Your task to perform on an android device: Open CNN.com Image 0: 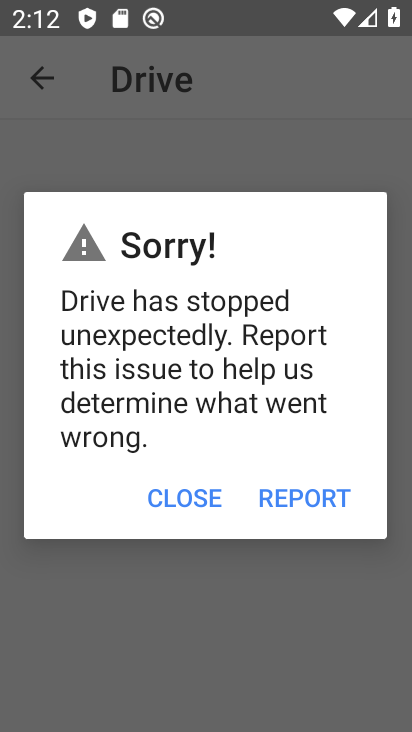
Step 0: press home button
Your task to perform on an android device: Open CNN.com Image 1: 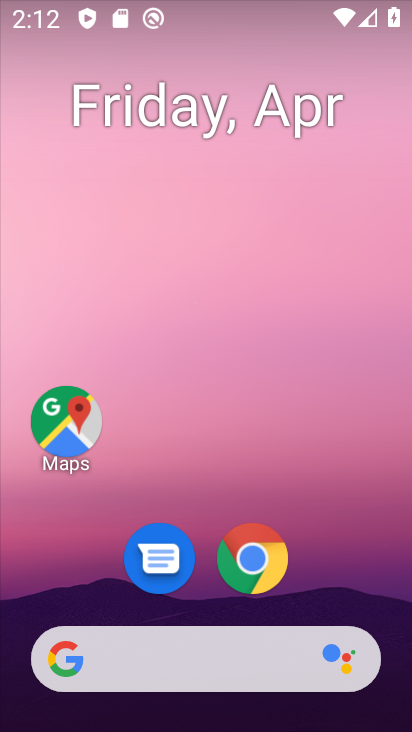
Step 1: click (238, 542)
Your task to perform on an android device: Open CNN.com Image 2: 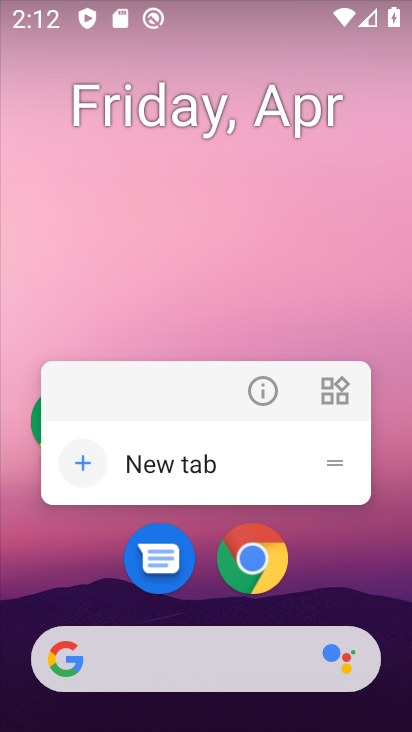
Step 2: click (238, 542)
Your task to perform on an android device: Open CNN.com Image 3: 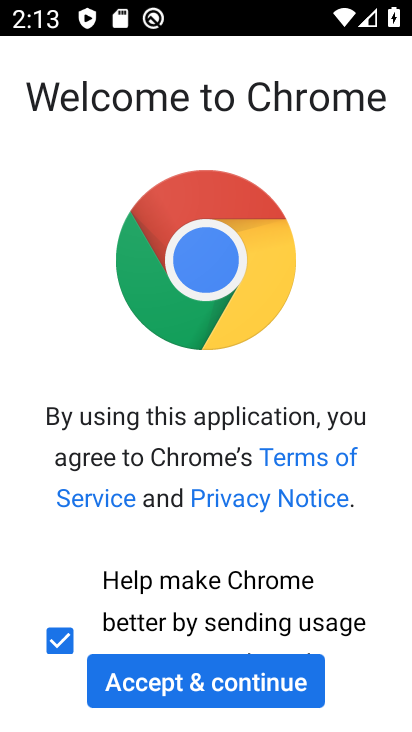
Step 3: click (216, 701)
Your task to perform on an android device: Open CNN.com Image 4: 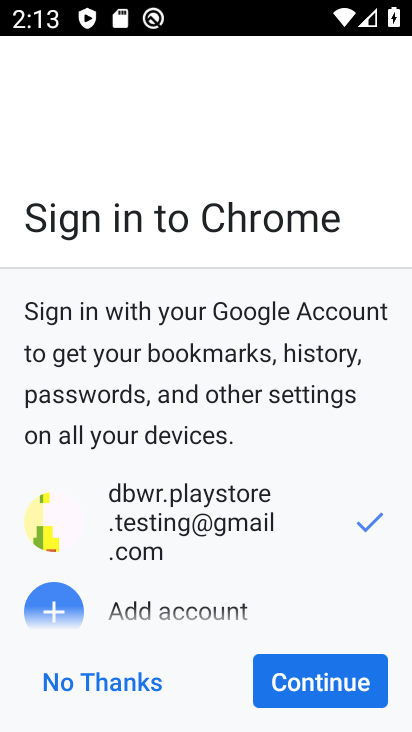
Step 4: click (352, 664)
Your task to perform on an android device: Open CNN.com Image 5: 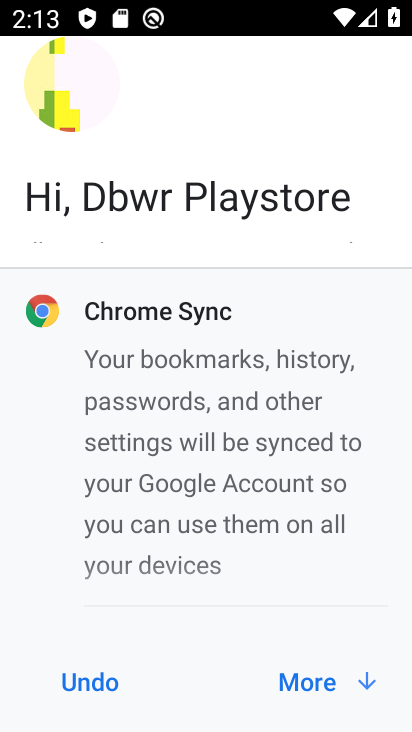
Step 5: click (320, 692)
Your task to perform on an android device: Open CNN.com Image 6: 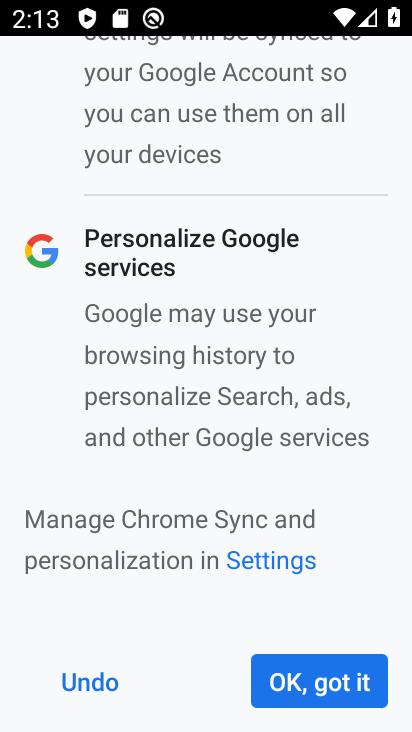
Step 6: click (320, 692)
Your task to perform on an android device: Open CNN.com Image 7: 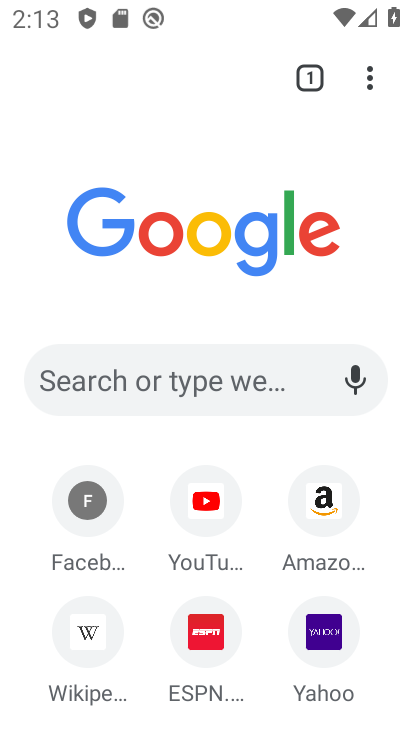
Step 7: click (190, 386)
Your task to perform on an android device: Open CNN.com Image 8: 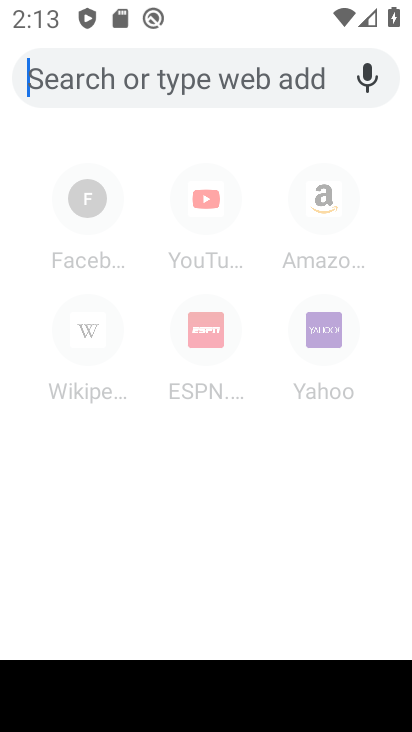
Step 8: type "cnn.com"
Your task to perform on an android device: Open CNN.com Image 9: 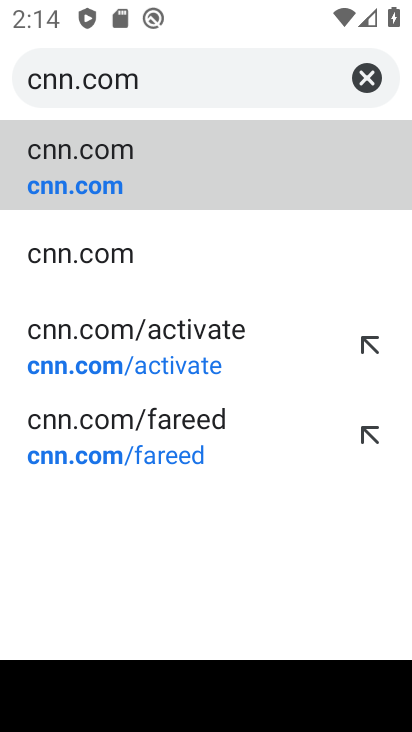
Step 9: click (109, 359)
Your task to perform on an android device: Open CNN.com Image 10: 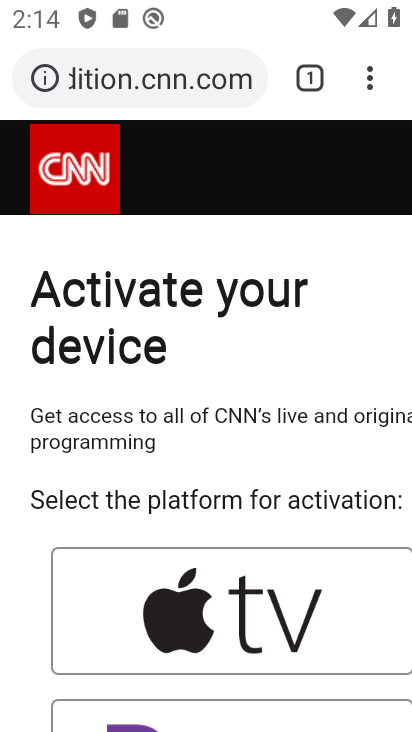
Step 10: task complete